Your task to perform on an android device: Search for Mexican restaurants on Maps Image 0: 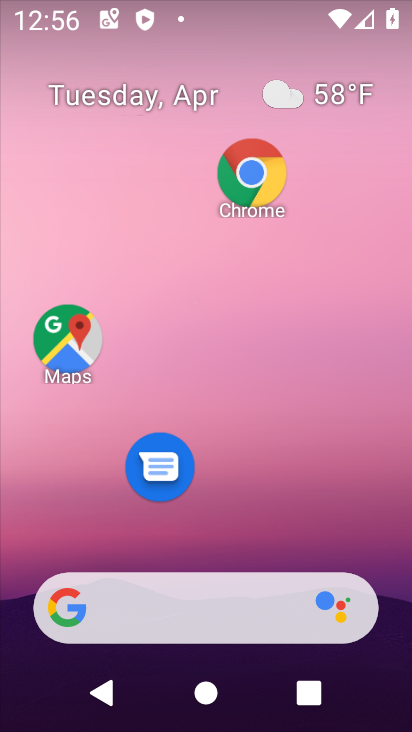
Step 0: drag from (148, 564) to (244, 71)
Your task to perform on an android device: Search for Mexican restaurants on Maps Image 1: 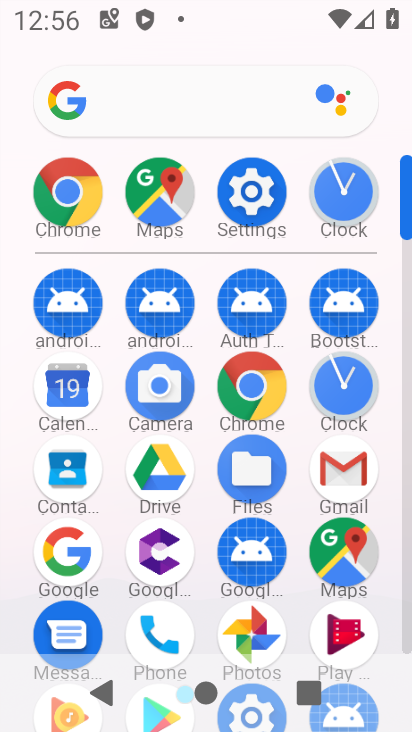
Step 1: click (352, 570)
Your task to perform on an android device: Search for Mexican restaurants on Maps Image 2: 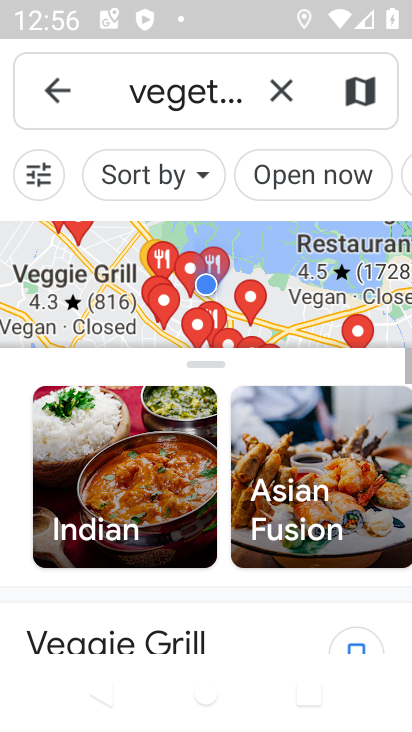
Step 2: click (285, 92)
Your task to perform on an android device: Search for Mexican restaurants on Maps Image 3: 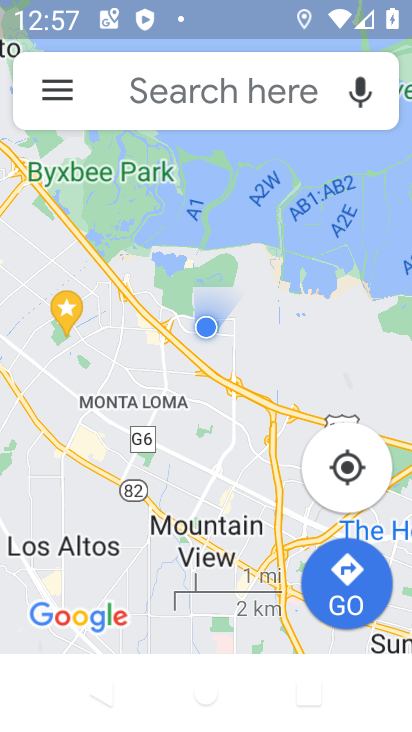
Step 3: click (281, 105)
Your task to perform on an android device: Search for Mexican restaurants on Maps Image 4: 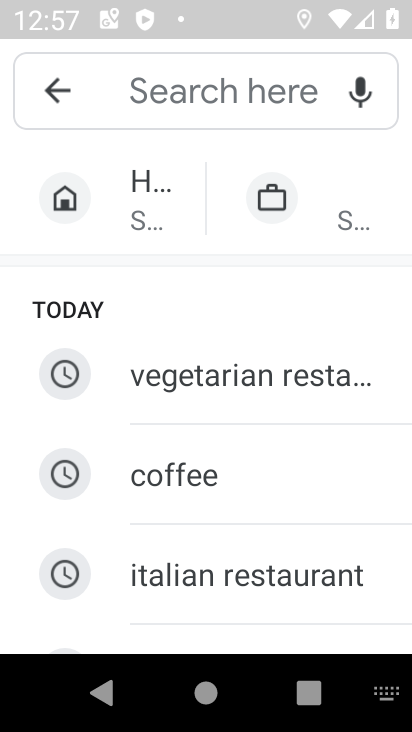
Step 4: type "mexican restaurant"
Your task to perform on an android device: Search for Mexican restaurants on Maps Image 5: 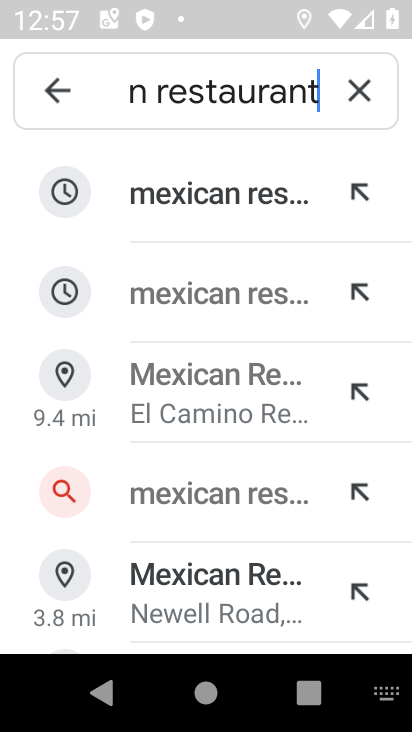
Step 5: click (249, 204)
Your task to perform on an android device: Search for Mexican restaurants on Maps Image 6: 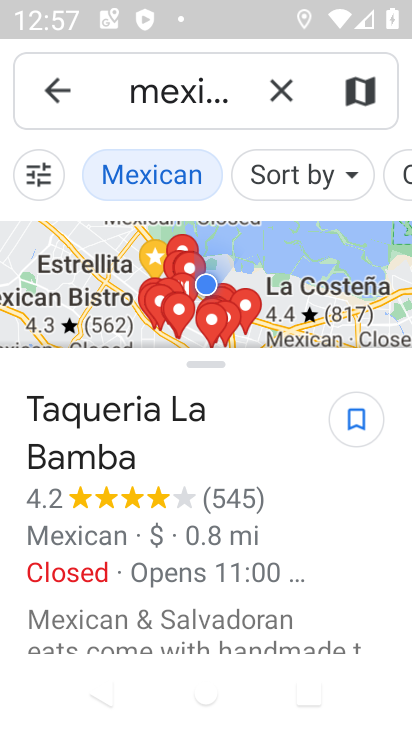
Step 6: task complete